Your task to perform on an android device: Go to Wikipedia Image 0: 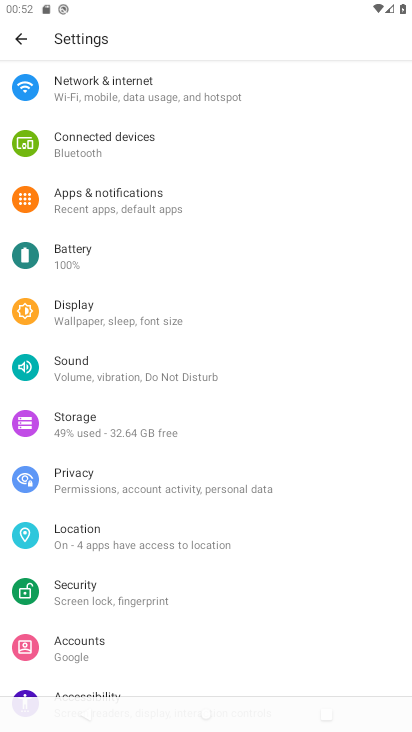
Step 0: press home button
Your task to perform on an android device: Go to Wikipedia Image 1: 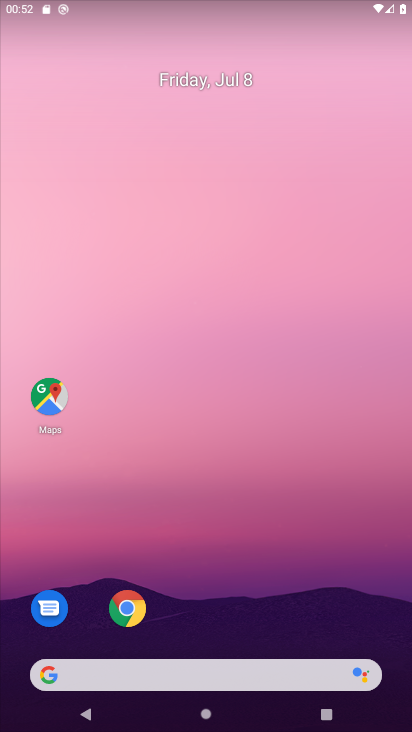
Step 1: drag from (198, 607) to (204, 444)
Your task to perform on an android device: Go to Wikipedia Image 2: 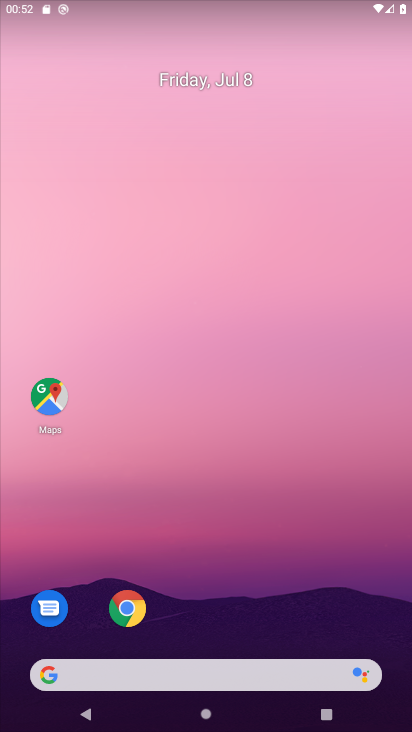
Step 2: drag from (192, 673) to (205, 596)
Your task to perform on an android device: Go to Wikipedia Image 3: 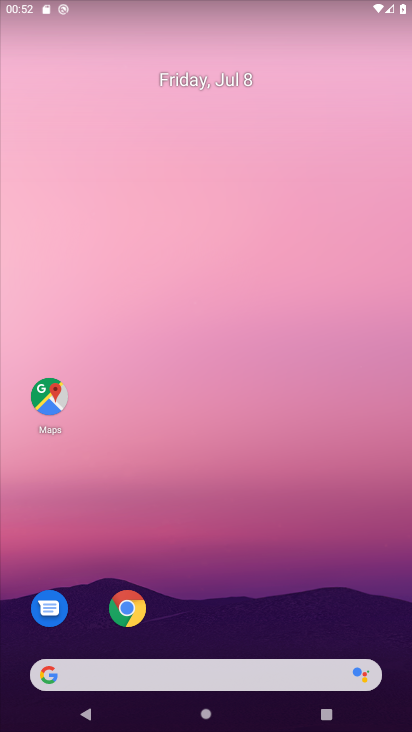
Step 3: drag from (210, 601) to (203, 64)
Your task to perform on an android device: Go to Wikipedia Image 4: 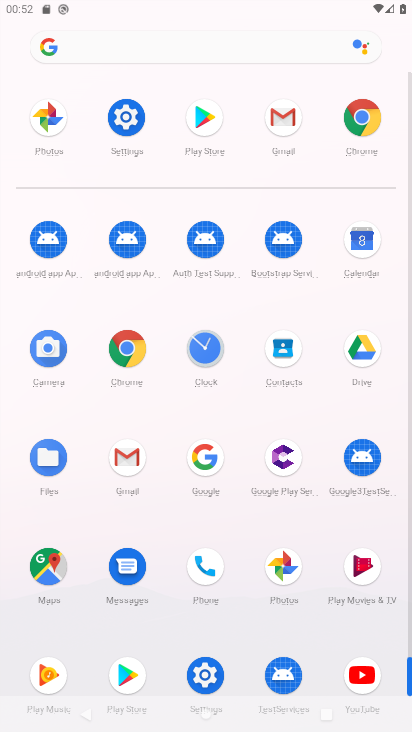
Step 4: click (120, 341)
Your task to perform on an android device: Go to Wikipedia Image 5: 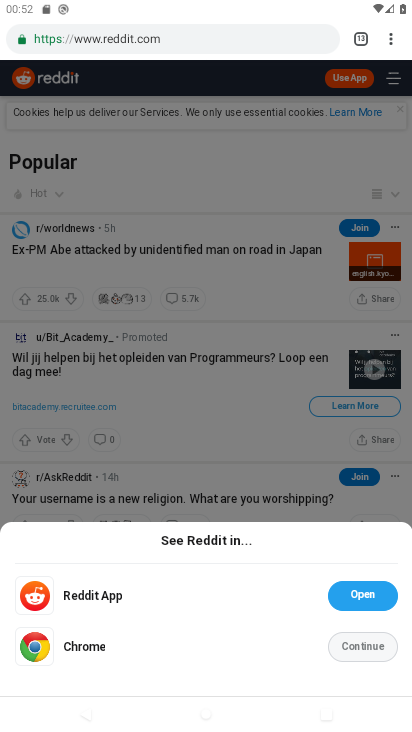
Step 5: click (394, 41)
Your task to perform on an android device: Go to Wikipedia Image 6: 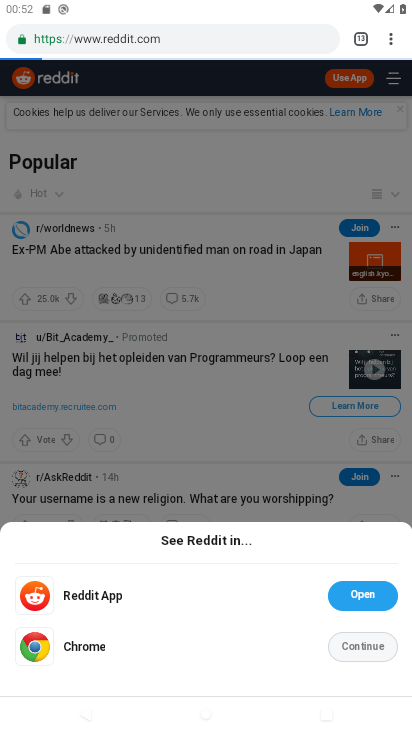
Step 6: click (394, 41)
Your task to perform on an android device: Go to Wikipedia Image 7: 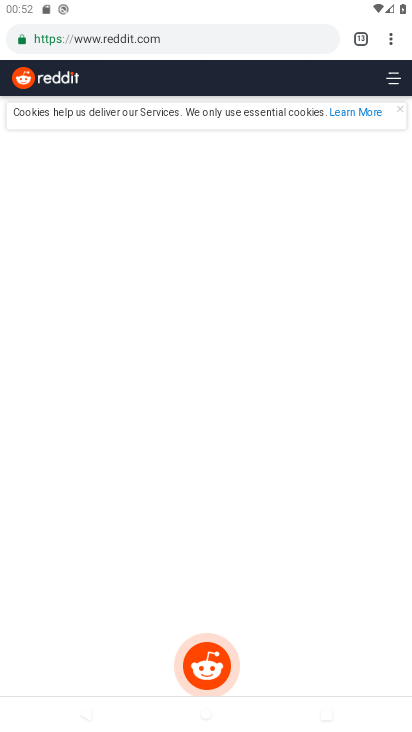
Step 7: click (394, 41)
Your task to perform on an android device: Go to Wikipedia Image 8: 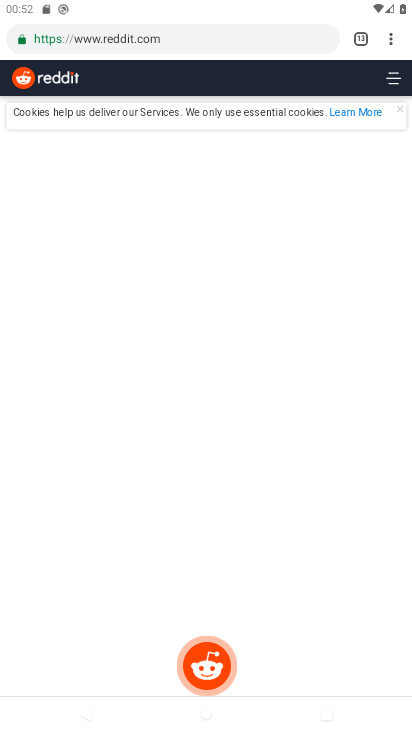
Step 8: click (391, 32)
Your task to perform on an android device: Go to Wikipedia Image 9: 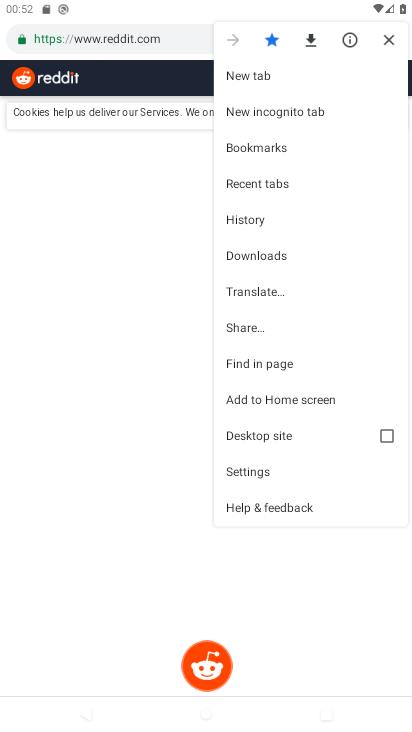
Step 9: click (246, 70)
Your task to perform on an android device: Go to Wikipedia Image 10: 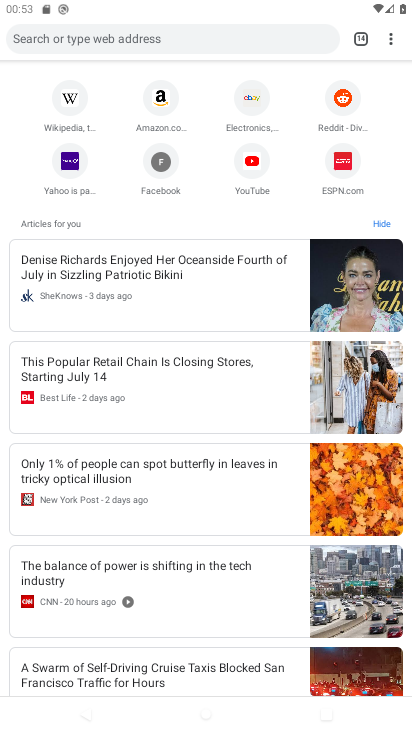
Step 10: click (67, 105)
Your task to perform on an android device: Go to Wikipedia Image 11: 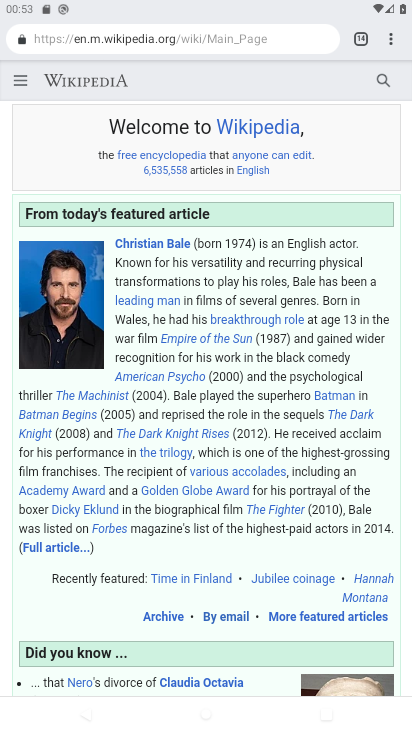
Step 11: task complete